Your task to perform on an android device: Install the Weather app Image 0: 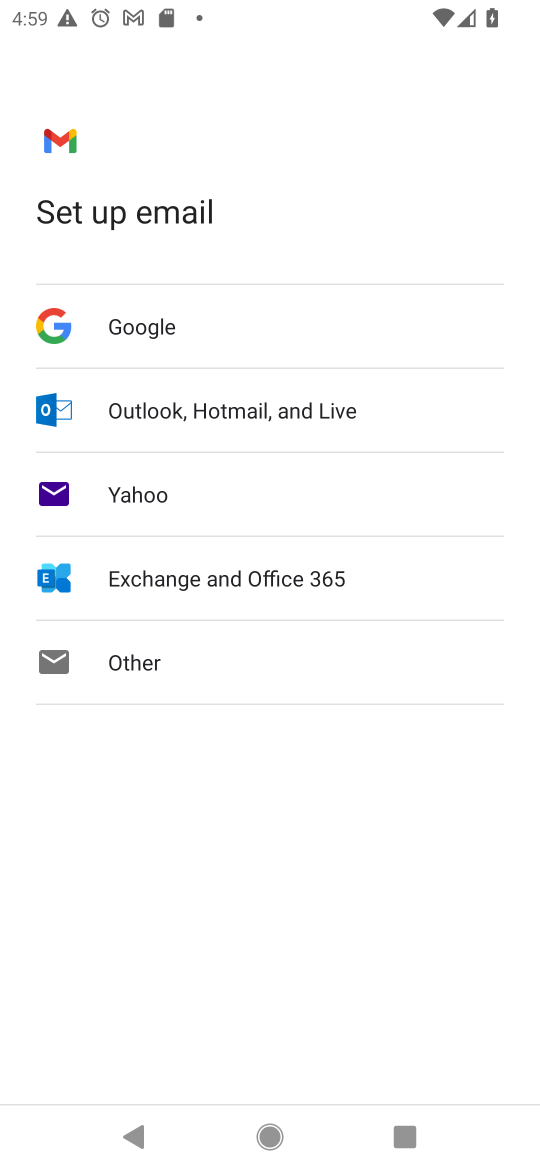
Step 0: press home button
Your task to perform on an android device: Install the Weather app Image 1: 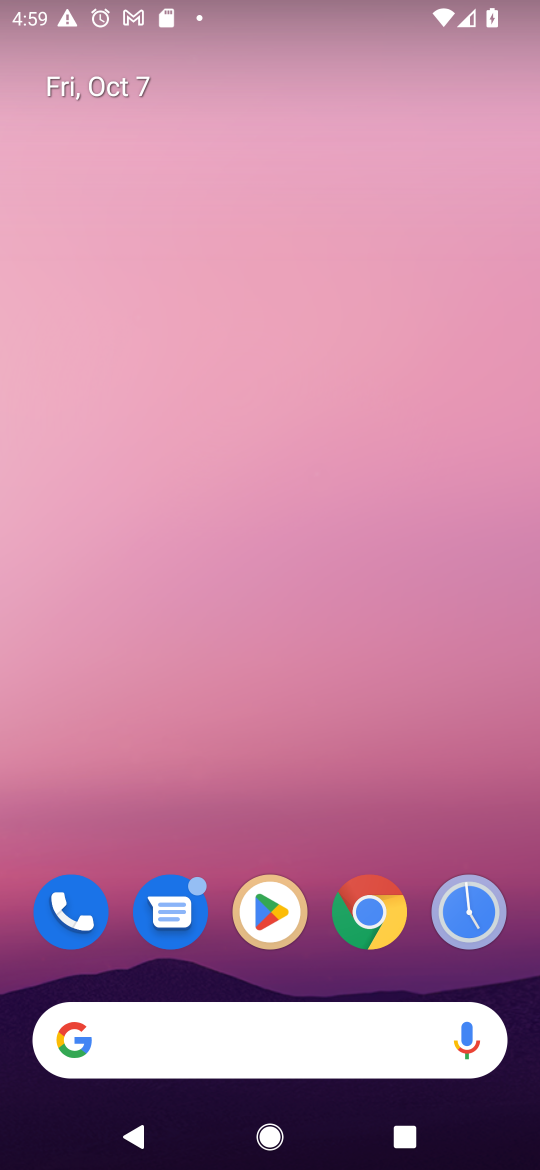
Step 1: drag from (319, 959) to (362, 406)
Your task to perform on an android device: Install the Weather app Image 2: 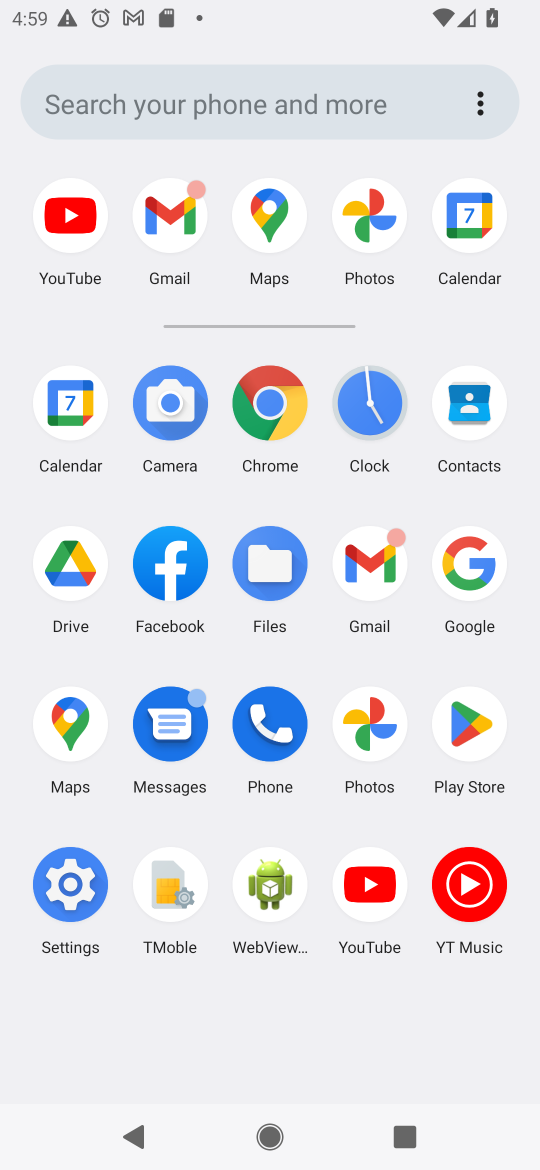
Step 2: click (464, 701)
Your task to perform on an android device: Install the Weather app Image 3: 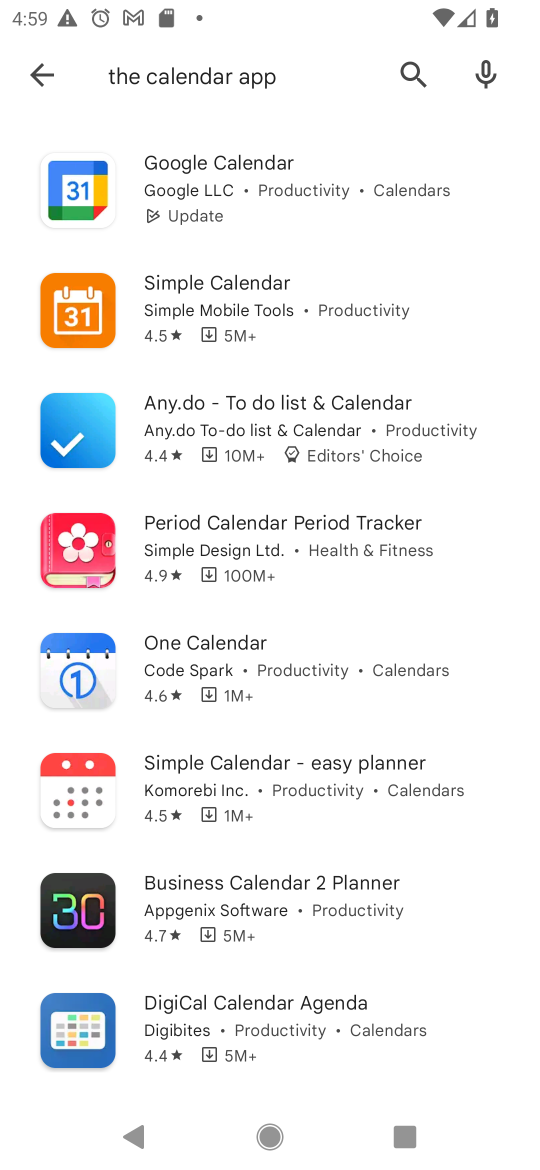
Step 3: click (377, 67)
Your task to perform on an android device: Install the Weather app Image 4: 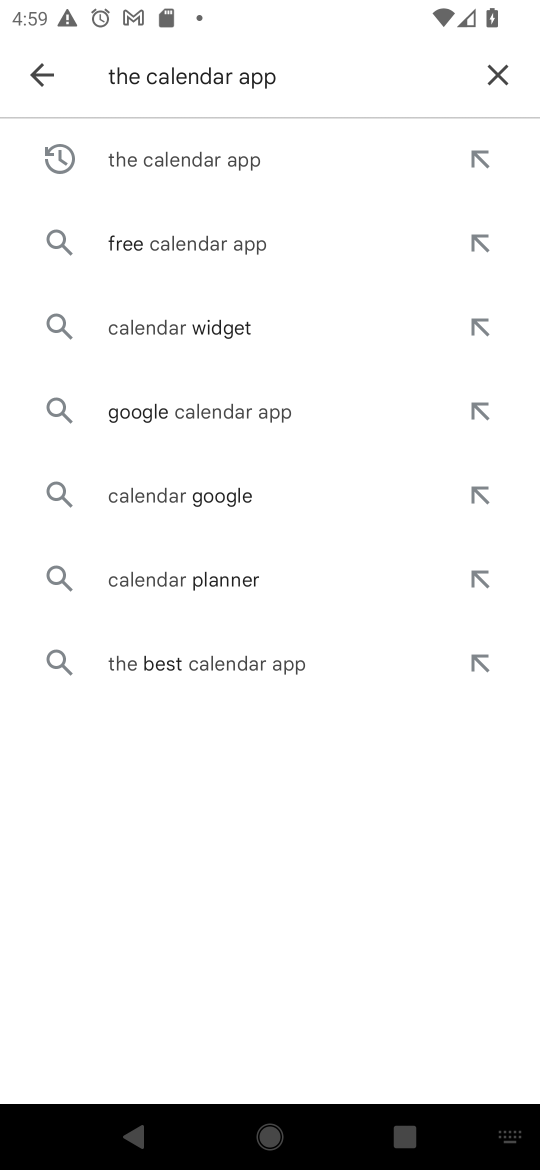
Step 4: click (496, 77)
Your task to perform on an android device: Install the Weather app Image 5: 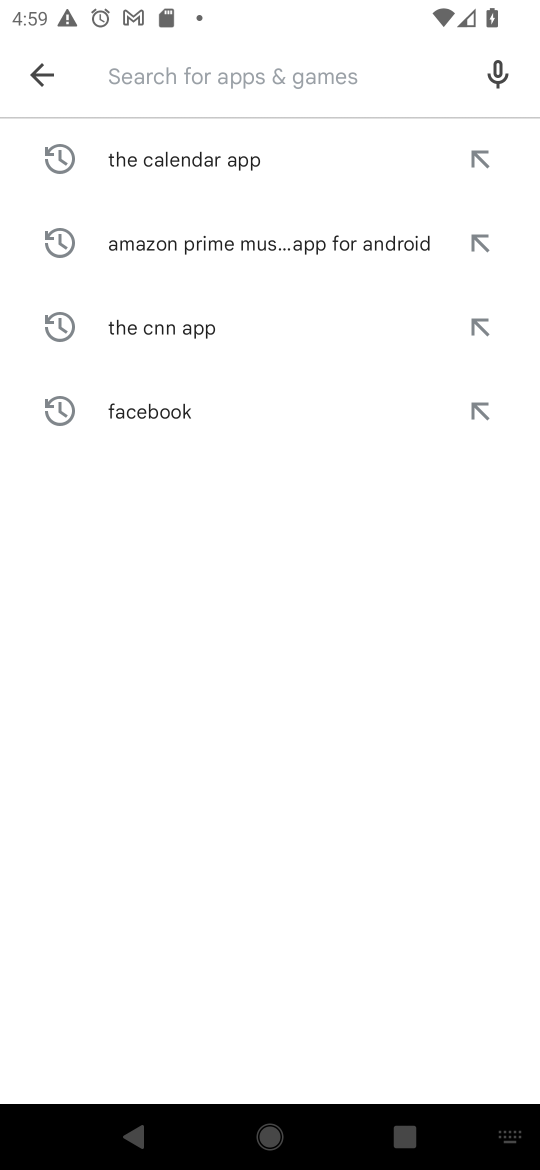
Step 5: click (248, 70)
Your task to perform on an android device: Install the Weather app Image 6: 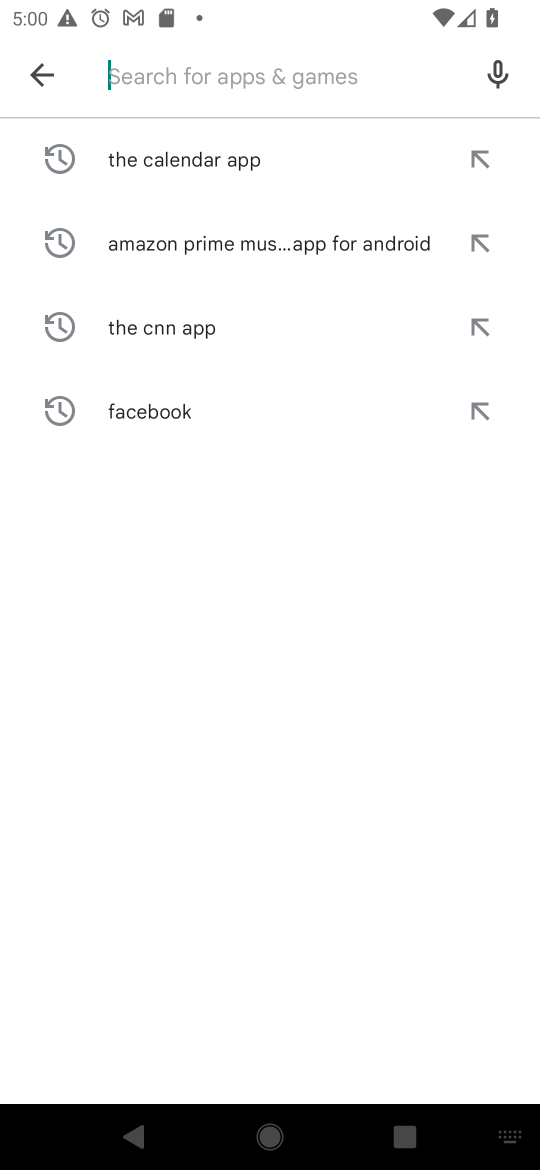
Step 6: type "the Weather app "
Your task to perform on an android device: Install the Weather app Image 7: 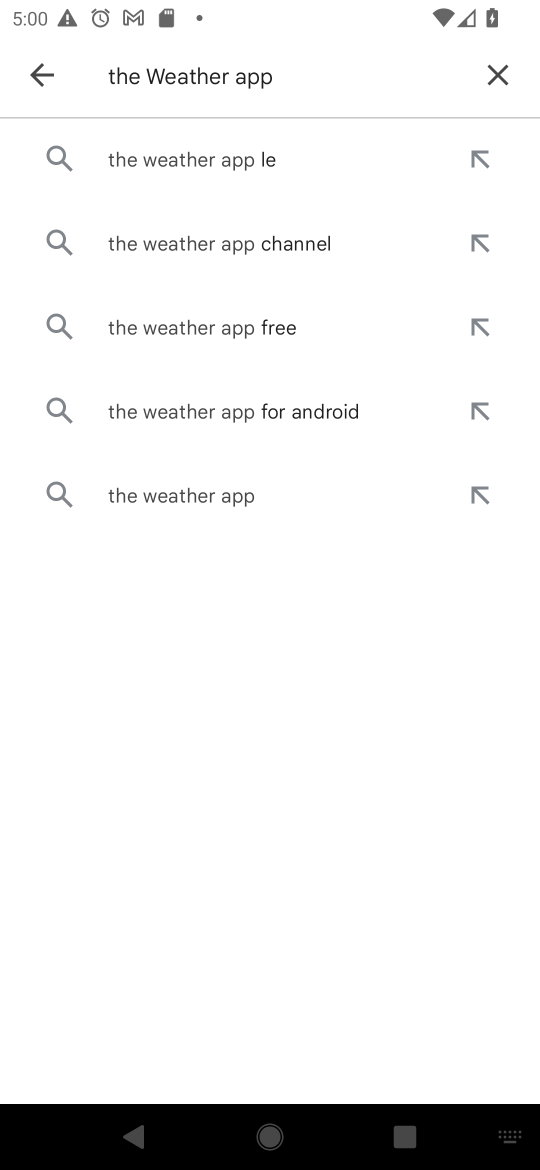
Step 7: click (220, 324)
Your task to perform on an android device: Install the Weather app Image 8: 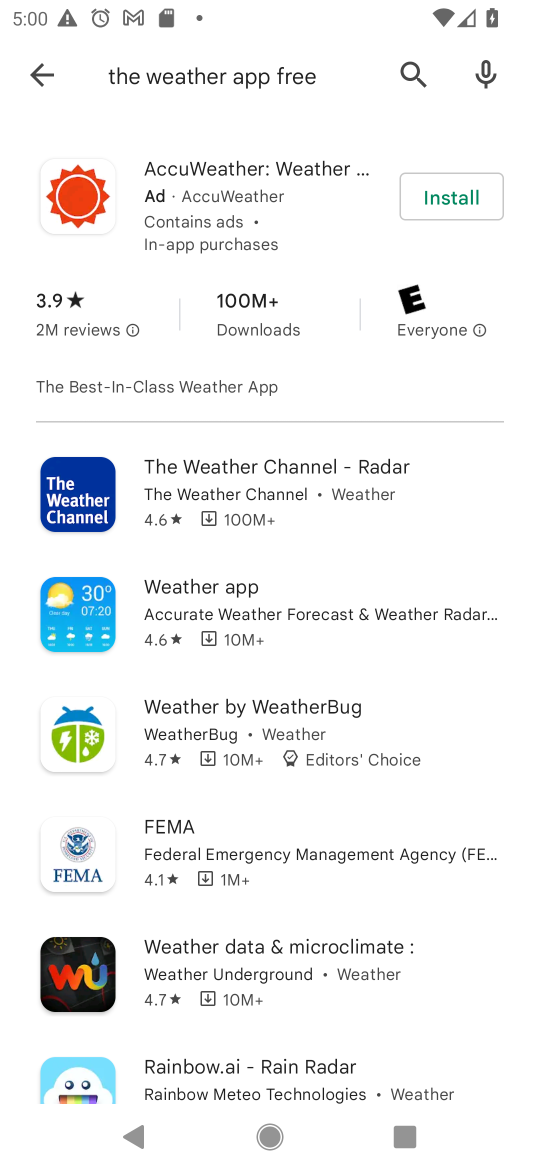
Step 8: click (423, 181)
Your task to perform on an android device: Install the Weather app Image 9: 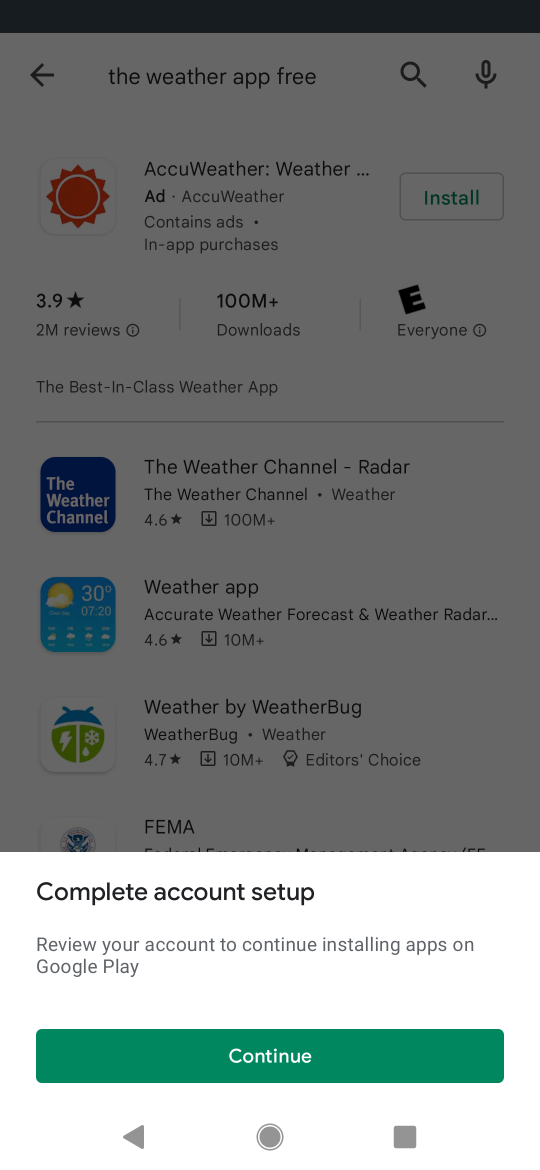
Step 9: click (33, 85)
Your task to perform on an android device: Install the Weather app Image 10: 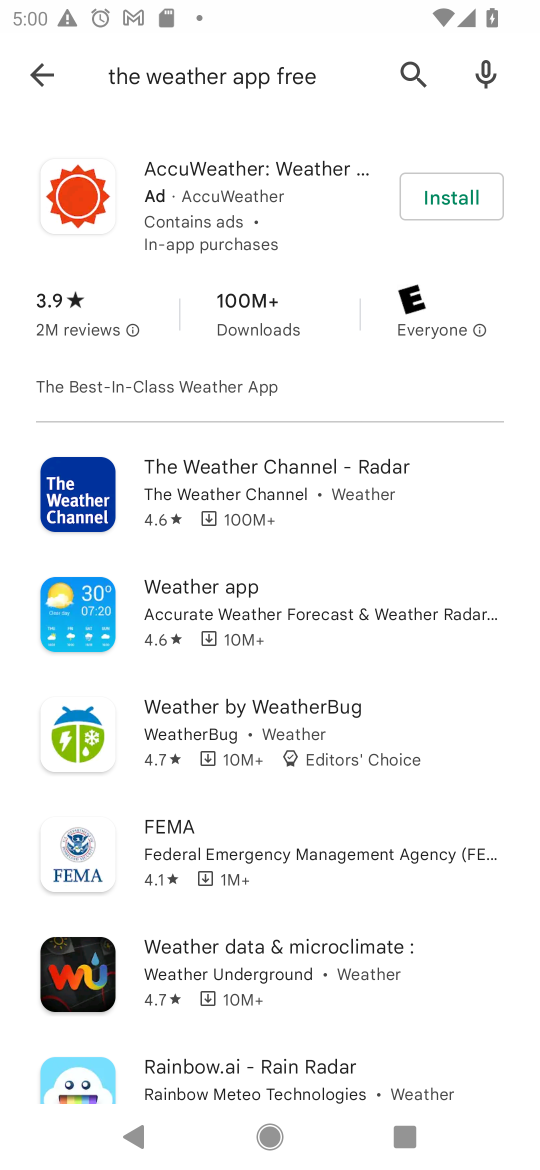
Step 10: click (33, 85)
Your task to perform on an android device: Install the Weather app Image 11: 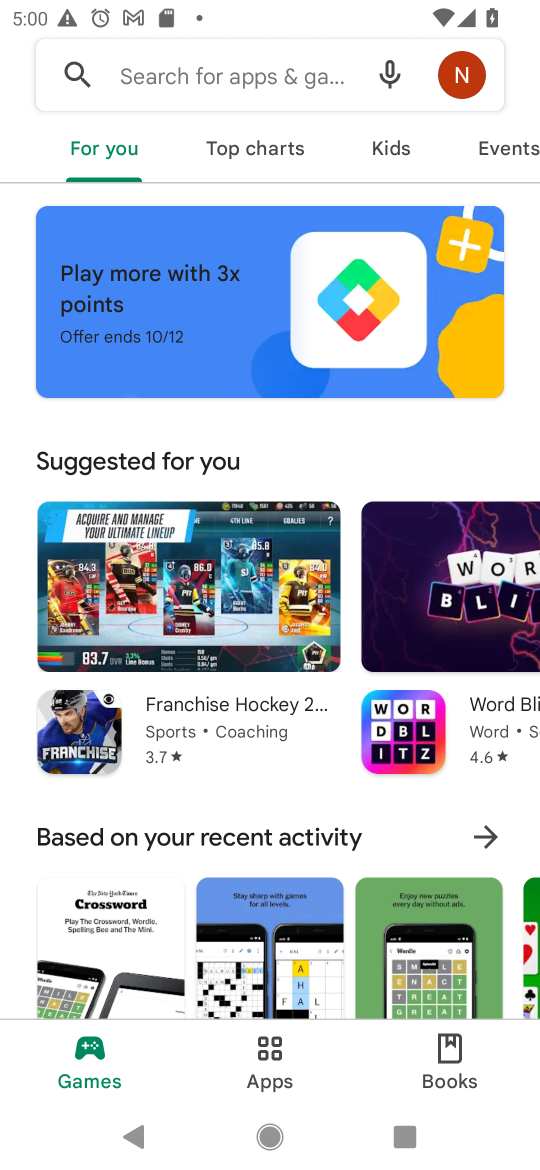
Step 11: click (182, 54)
Your task to perform on an android device: Install the Weather app Image 12: 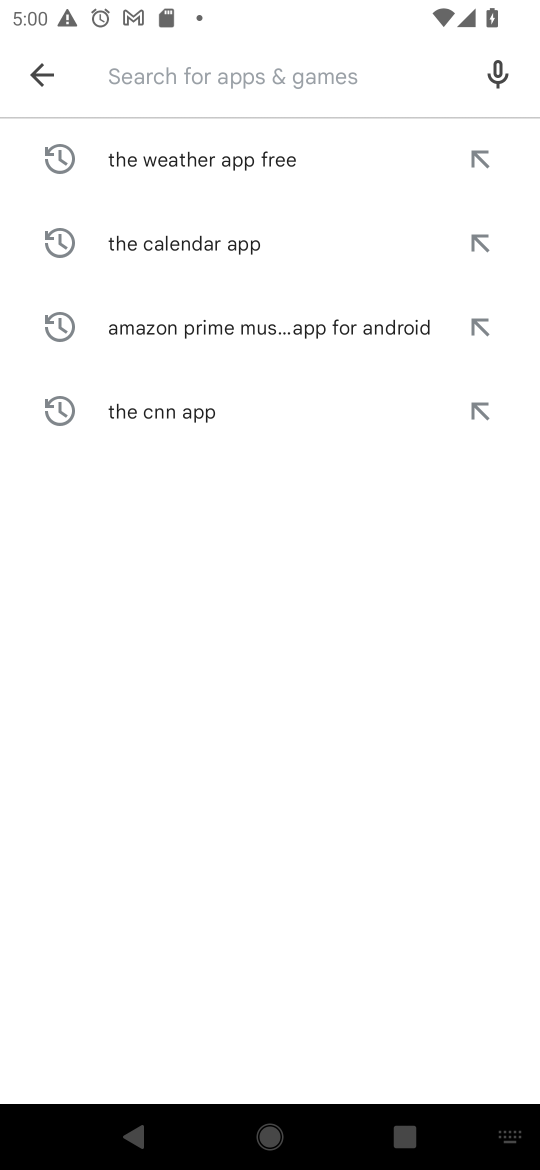
Step 12: click (284, 86)
Your task to perform on an android device: Install the Weather app Image 13: 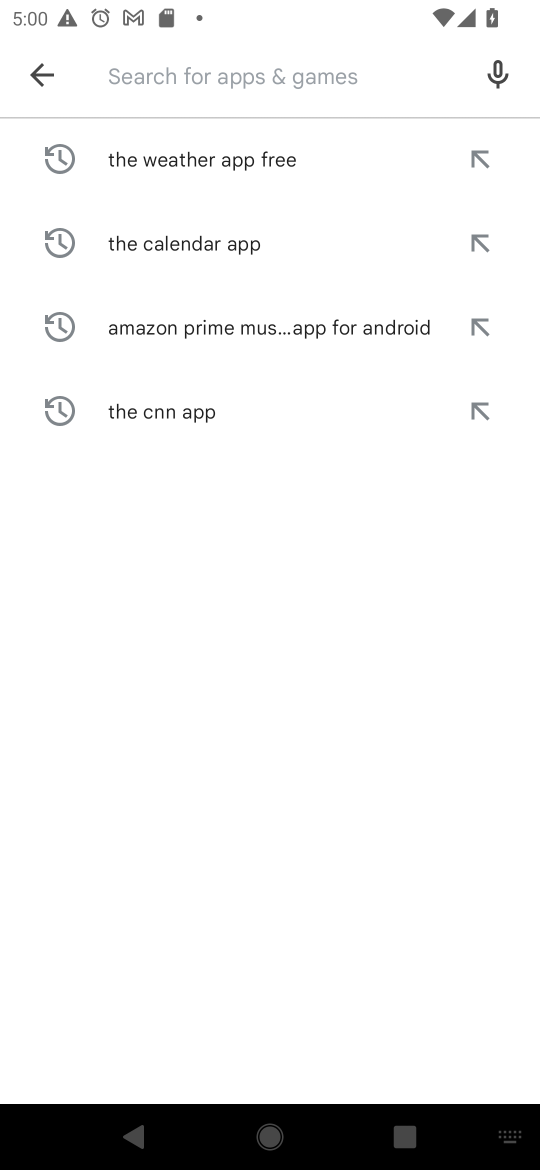
Step 13: type " Weather app "
Your task to perform on an android device: Install the Weather app Image 14: 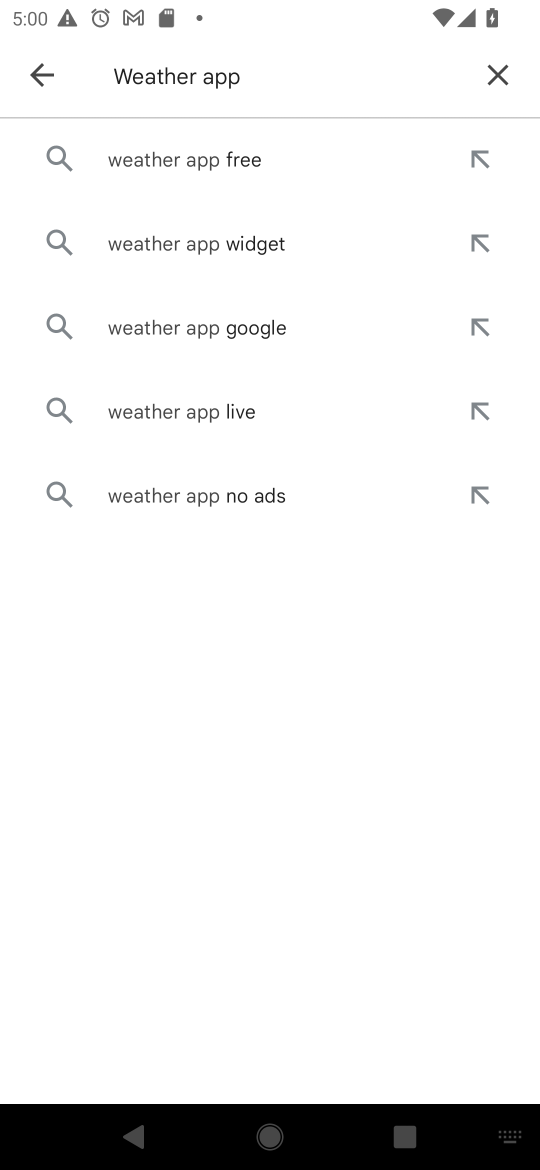
Step 14: click (213, 168)
Your task to perform on an android device: Install the Weather app Image 15: 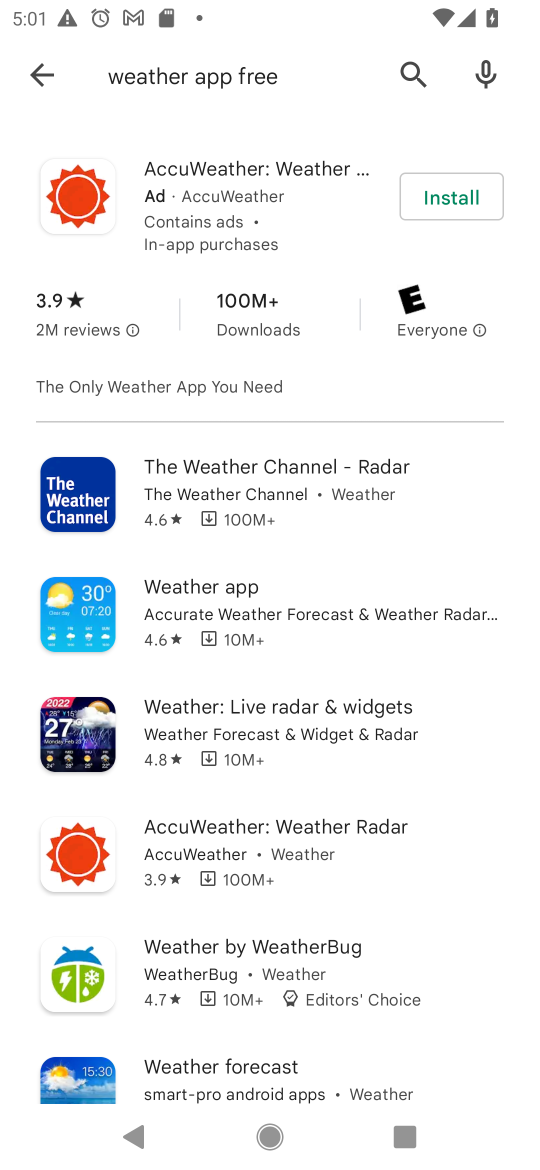
Step 15: click (239, 494)
Your task to perform on an android device: Install the Weather app Image 16: 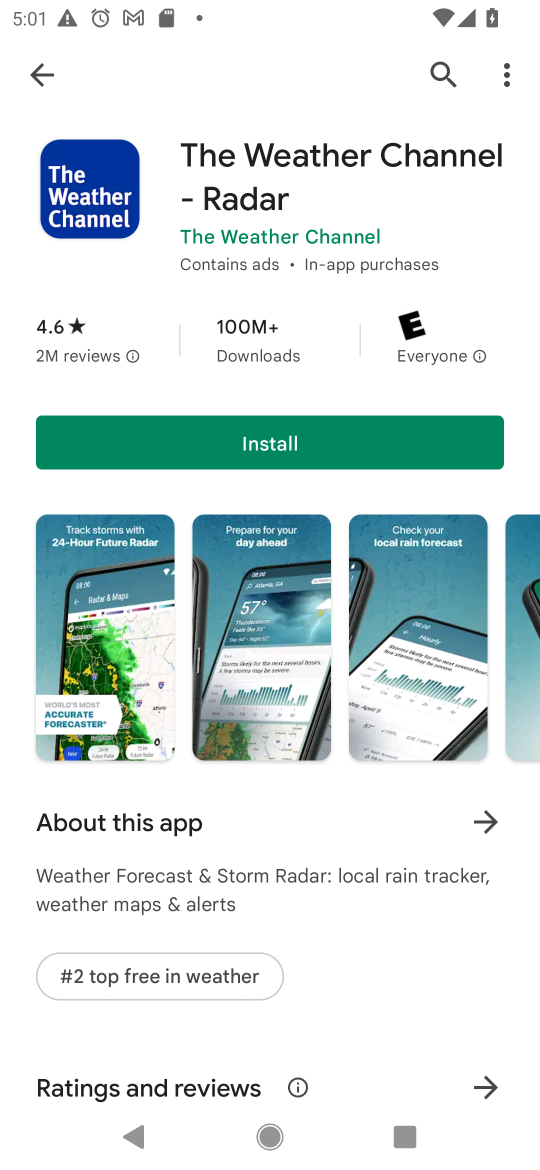
Step 16: click (298, 399)
Your task to perform on an android device: Install the Weather app Image 17: 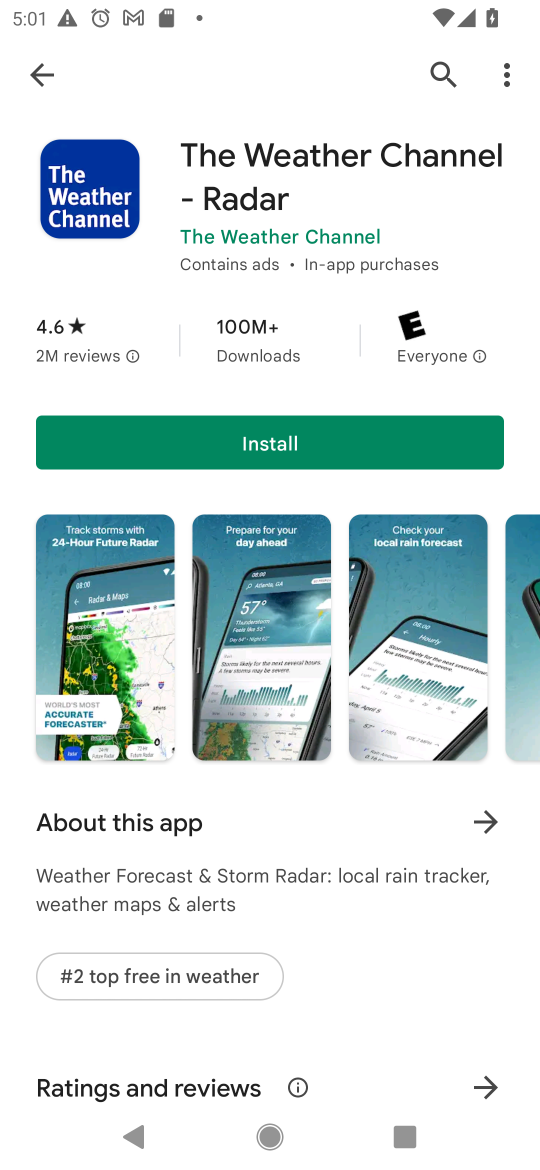
Step 17: click (298, 424)
Your task to perform on an android device: Install the Weather app Image 18: 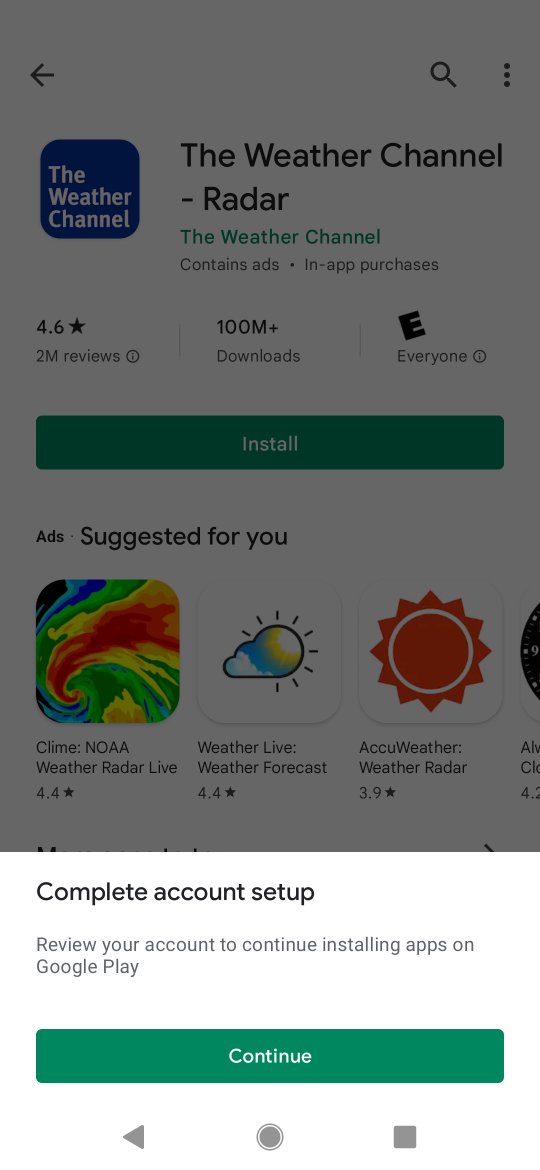
Step 18: task complete